Your task to perform on an android device: open app "Facebook Messenger" (install if not already installed) and enter user name: "divorce@inbox.com" and password: "caviar" Image 0: 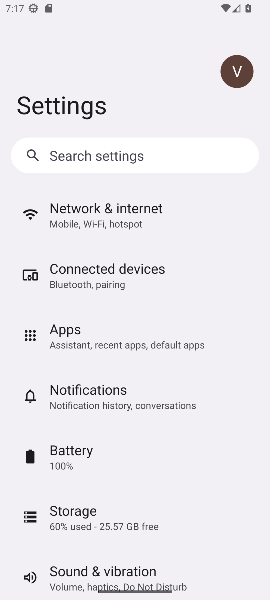
Step 0: press home button
Your task to perform on an android device: open app "Facebook Messenger" (install if not already installed) and enter user name: "divorce@inbox.com" and password: "caviar" Image 1: 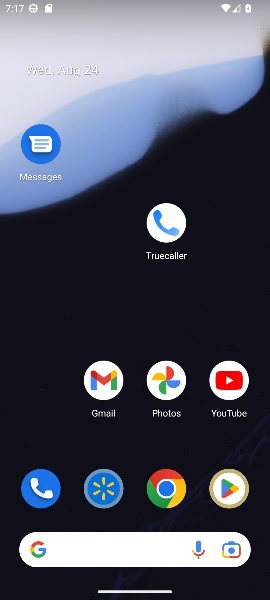
Step 1: click (230, 485)
Your task to perform on an android device: open app "Facebook Messenger" (install if not already installed) and enter user name: "divorce@inbox.com" and password: "caviar" Image 2: 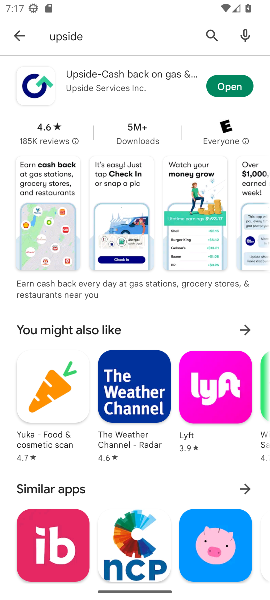
Step 2: click (215, 42)
Your task to perform on an android device: open app "Facebook Messenger" (install if not already installed) and enter user name: "divorce@inbox.com" and password: "caviar" Image 3: 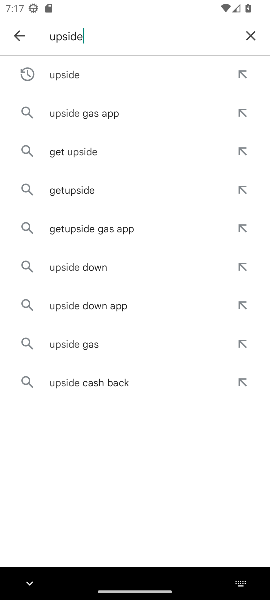
Step 3: click (244, 39)
Your task to perform on an android device: open app "Facebook Messenger" (install if not already installed) and enter user name: "divorce@inbox.com" and password: "caviar" Image 4: 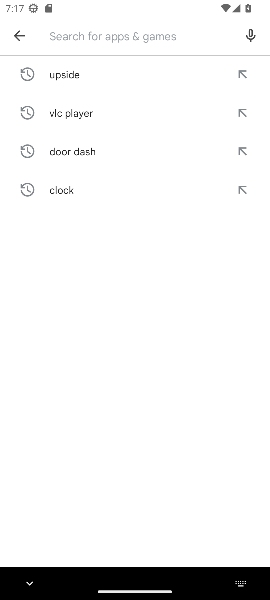
Step 4: type "facebook"
Your task to perform on an android device: open app "Facebook Messenger" (install if not already installed) and enter user name: "divorce@inbox.com" and password: "caviar" Image 5: 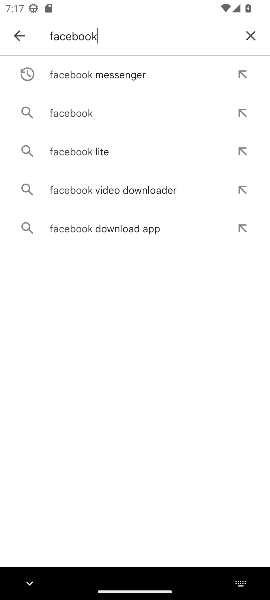
Step 5: click (110, 75)
Your task to perform on an android device: open app "Facebook Messenger" (install if not already installed) and enter user name: "divorce@inbox.com" and password: "caviar" Image 6: 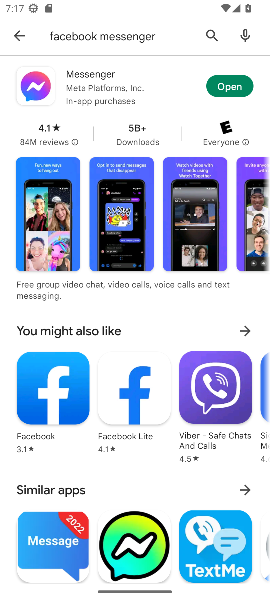
Step 6: click (231, 79)
Your task to perform on an android device: open app "Facebook Messenger" (install if not already installed) and enter user name: "divorce@inbox.com" and password: "caviar" Image 7: 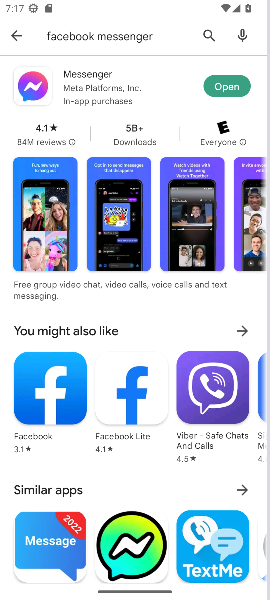
Step 7: task complete